Your task to perform on an android device: Search for Italian restaurants on Maps Image 0: 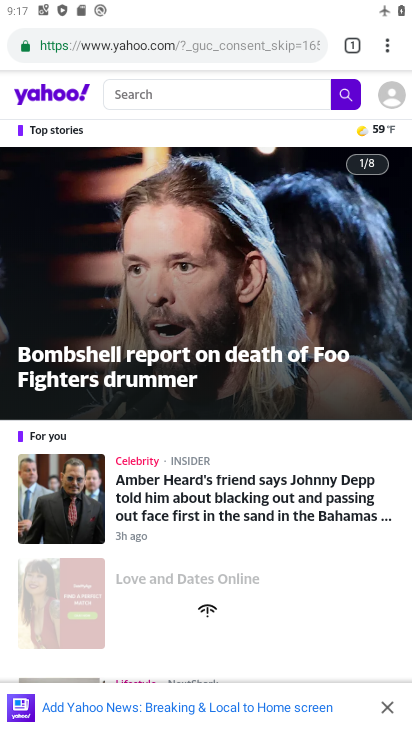
Step 0: press home button
Your task to perform on an android device: Search for Italian restaurants on Maps Image 1: 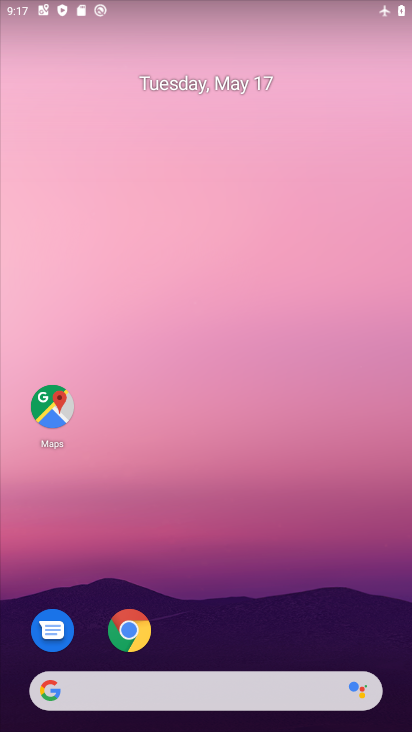
Step 1: click (209, 291)
Your task to perform on an android device: Search for Italian restaurants on Maps Image 2: 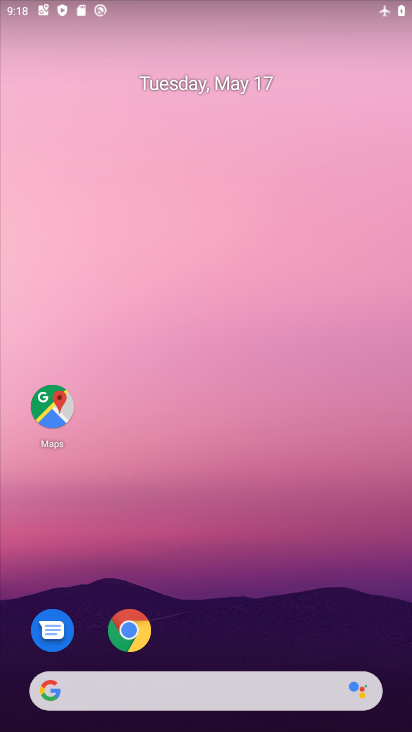
Step 2: drag from (249, 603) to (251, 322)
Your task to perform on an android device: Search for Italian restaurants on Maps Image 3: 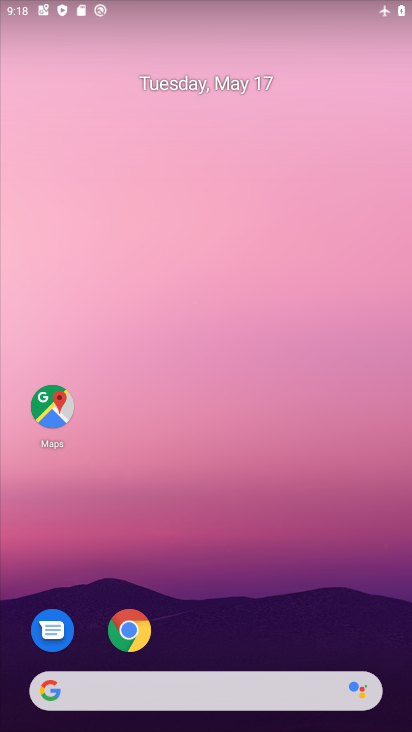
Step 3: drag from (241, 632) to (229, 77)
Your task to perform on an android device: Search for Italian restaurants on Maps Image 4: 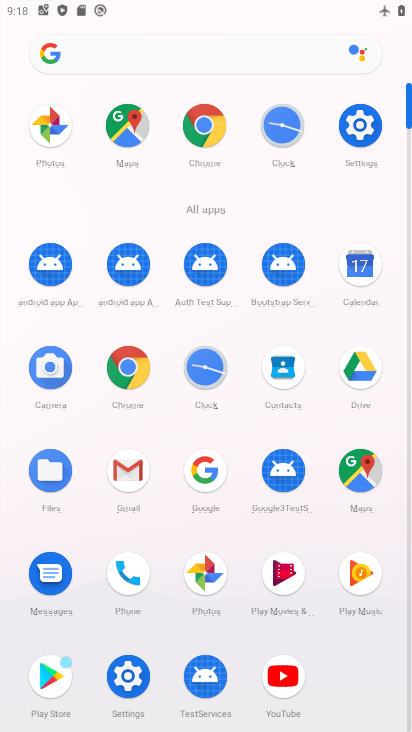
Step 4: click (125, 133)
Your task to perform on an android device: Search for Italian restaurants on Maps Image 5: 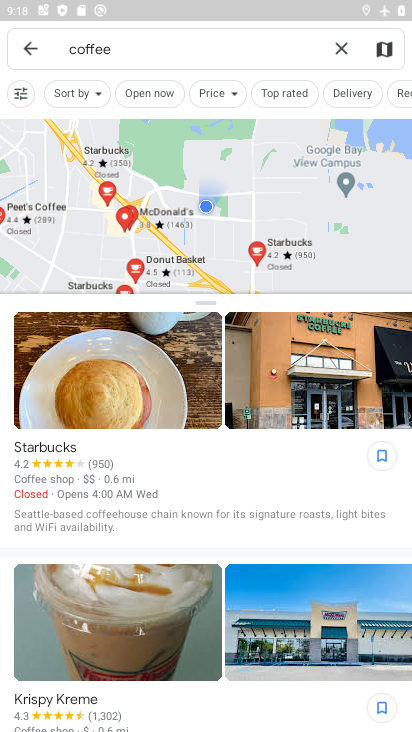
Step 5: click (342, 52)
Your task to perform on an android device: Search for Italian restaurants on Maps Image 6: 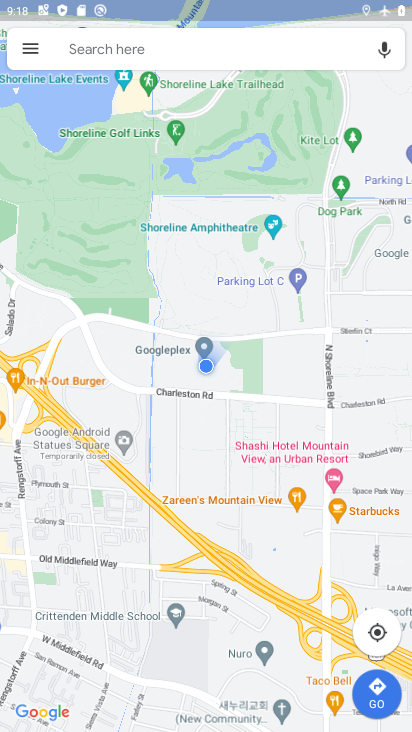
Step 6: click (77, 46)
Your task to perform on an android device: Search for Italian restaurants on Maps Image 7: 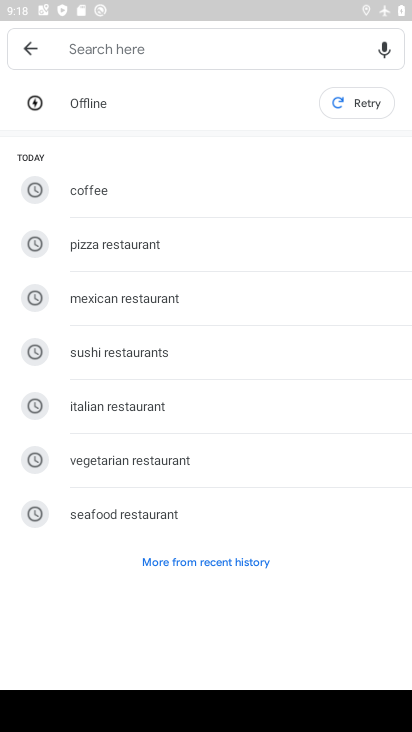
Step 7: click (185, 408)
Your task to perform on an android device: Search for Italian restaurants on Maps Image 8: 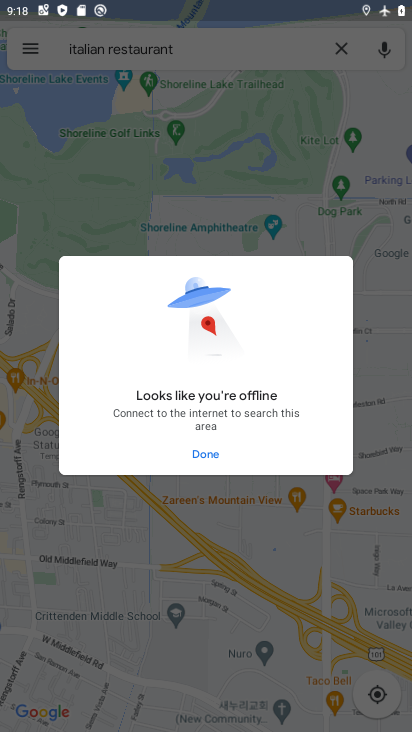
Step 8: click (206, 450)
Your task to perform on an android device: Search for Italian restaurants on Maps Image 9: 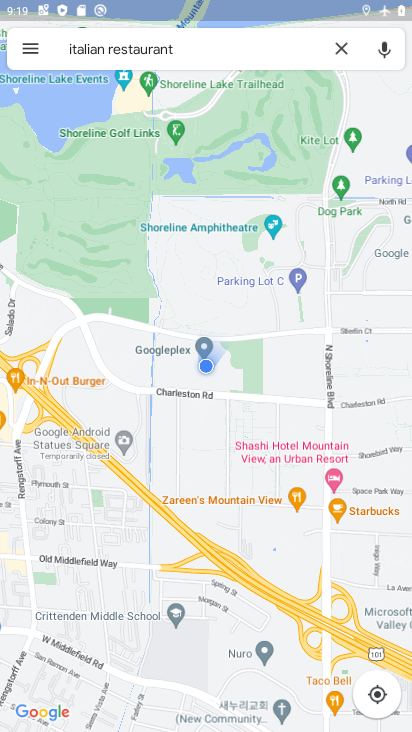
Step 9: task complete